Your task to perform on an android device: turn on showing notifications on the lock screen Image 0: 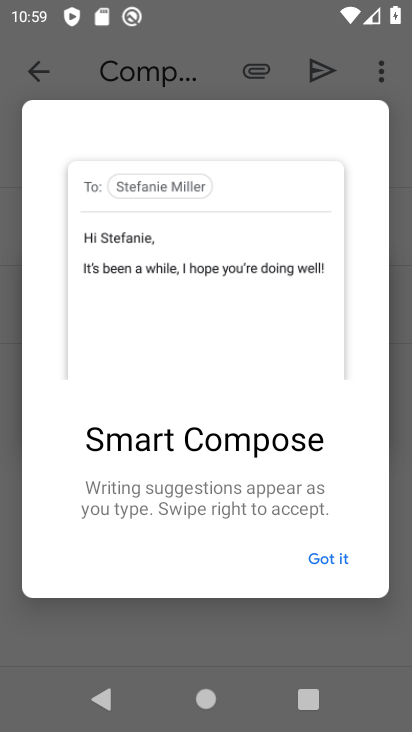
Step 0: press home button
Your task to perform on an android device: turn on showing notifications on the lock screen Image 1: 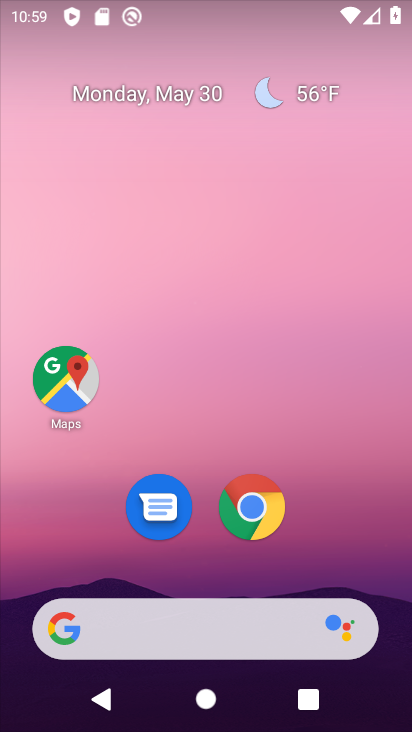
Step 1: drag from (161, 729) to (108, 50)
Your task to perform on an android device: turn on showing notifications on the lock screen Image 2: 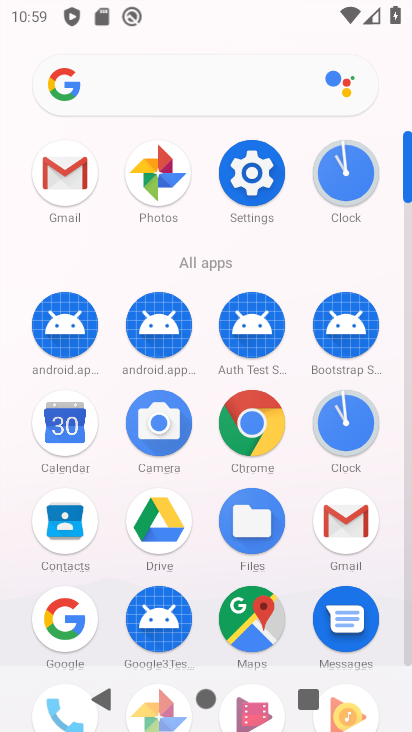
Step 2: click (275, 173)
Your task to perform on an android device: turn on showing notifications on the lock screen Image 3: 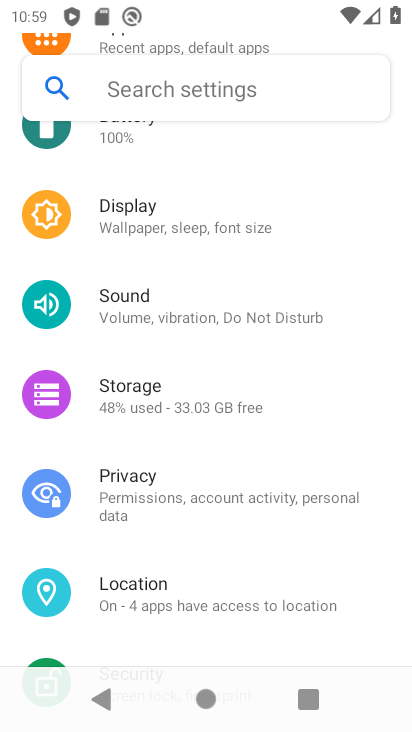
Step 3: drag from (276, 205) to (297, 547)
Your task to perform on an android device: turn on showing notifications on the lock screen Image 4: 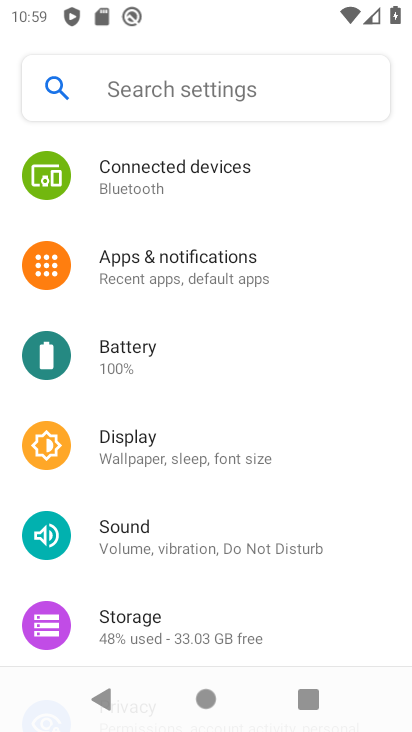
Step 4: click (187, 277)
Your task to perform on an android device: turn on showing notifications on the lock screen Image 5: 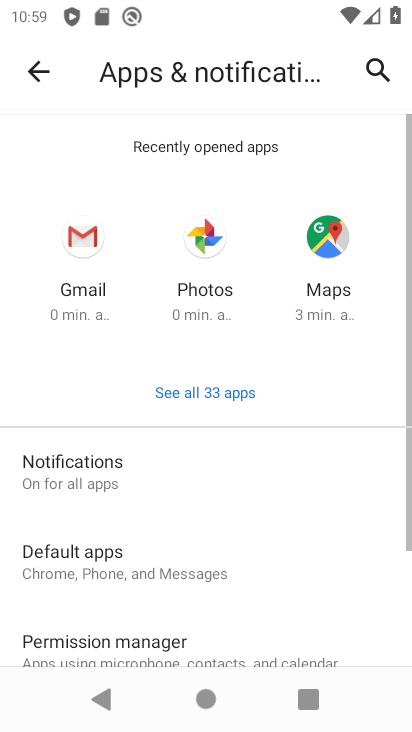
Step 5: drag from (308, 603) to (357, 249)
Your task to perform on an android device: turn on showing notifications on the lock screen Image 6: 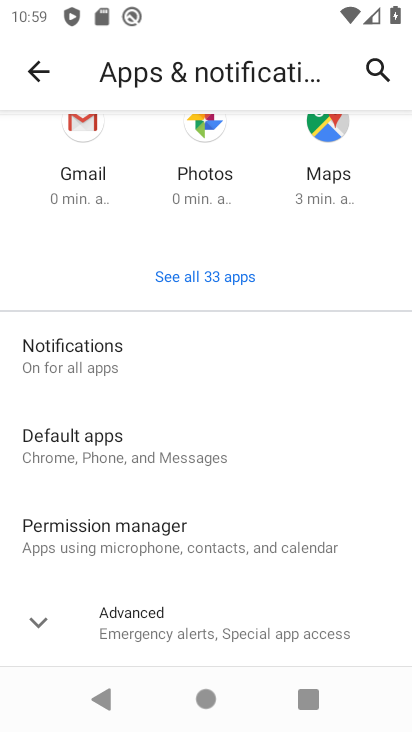
Step 6: click (241, 624)
Your task to perform on an android device: turn on showing notifications on the lock screen Image 7: 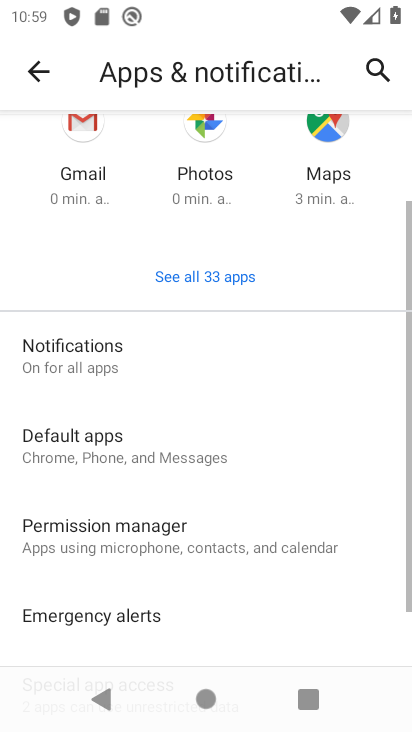
Step 7: drag from (305, 573) to (312, 217)
Your task to perform on an android device: turn on showing notifications on the lock screen Image 8: 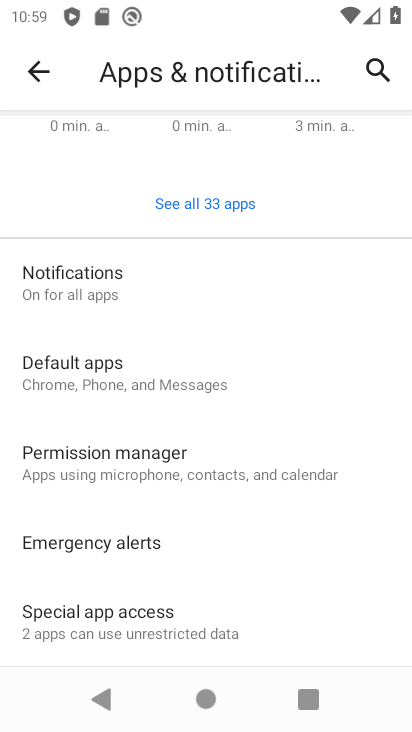
Step 8: click (100, 279)
Your task to perform on an android device: turn on showing notifications on the lock screen Image 9: 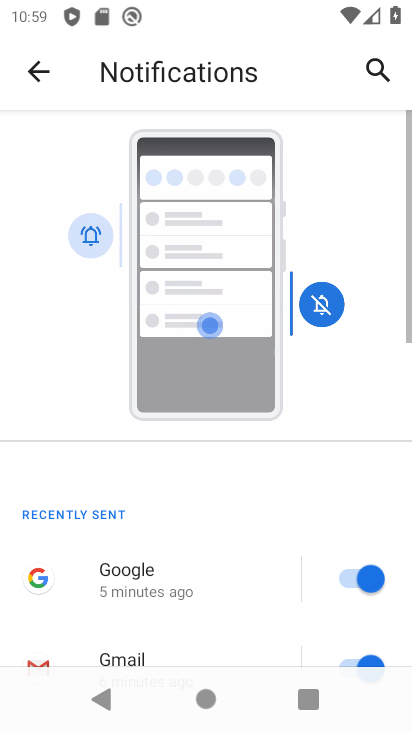
Step 9: drag from (208, 500) to (218, 173)
Your task to perform on an android device: turn on showing notifications on the lock screen Image 10: 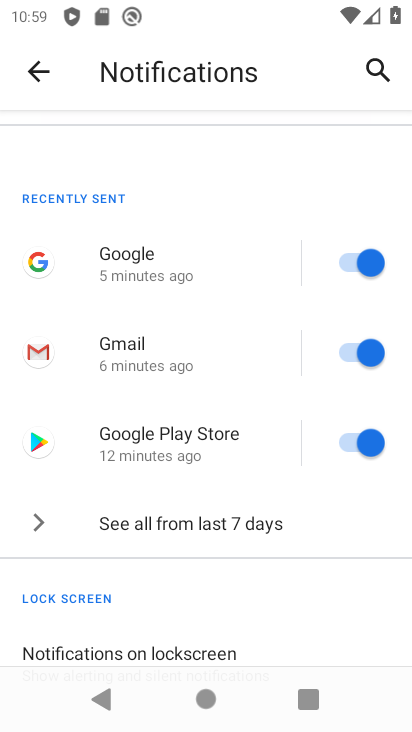
Step 10: click (164, 649)
Your task to perform on an android device: turn on showing notifications on the lock screen Image 11: 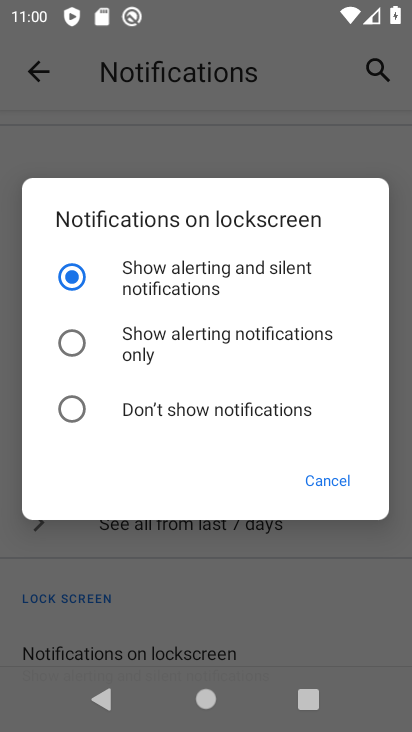
Step 11: task complete